Your task to perform on an android device: What's the weather going to be tomorrow? Image 0: 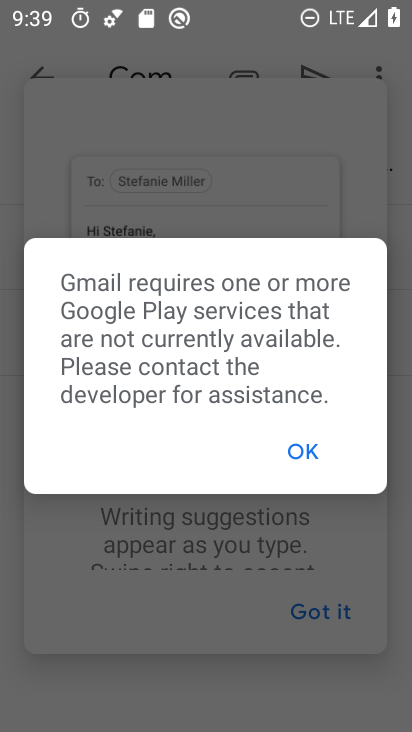
Step 0: press home button
Your task to perform on an android device: What's the weather going to be tomorrow? Image 1: 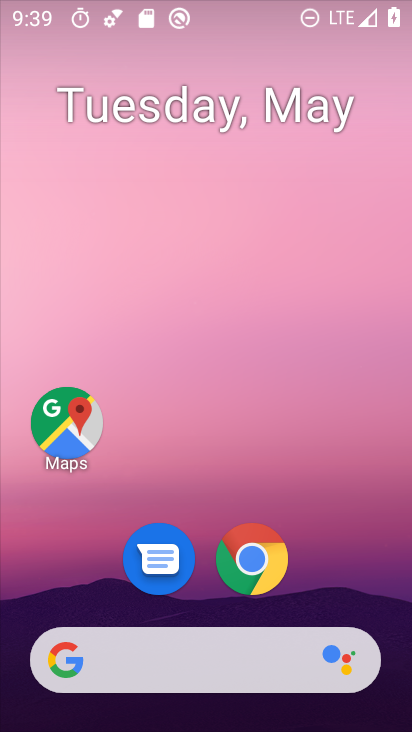
Step 1: drag from (397, 624) to (269, 102)
Your task to perform on an android device: What's the weather going to be tomorrow? Image 2: 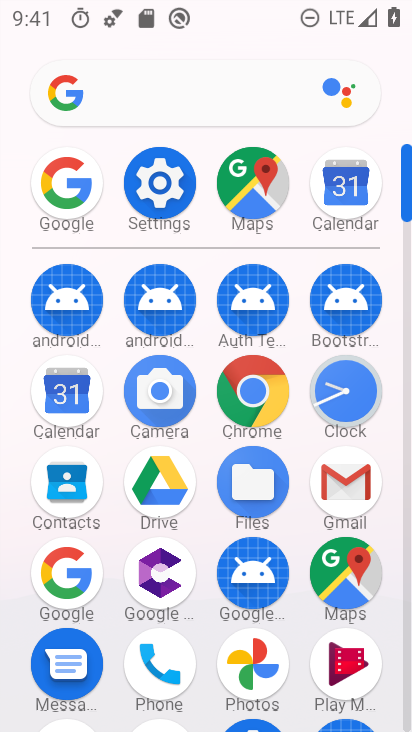
Step 2: click (85, 556)
Your task to perform on an android device: What's the weather going to be tomorrow? Image 3: 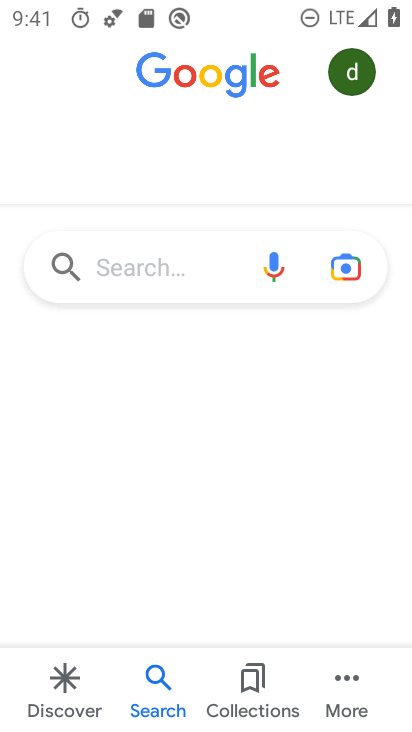
Step 3: click (107, 253)
Your task to perform on an android device: What's the weather going to be tomorrow? Image 4: 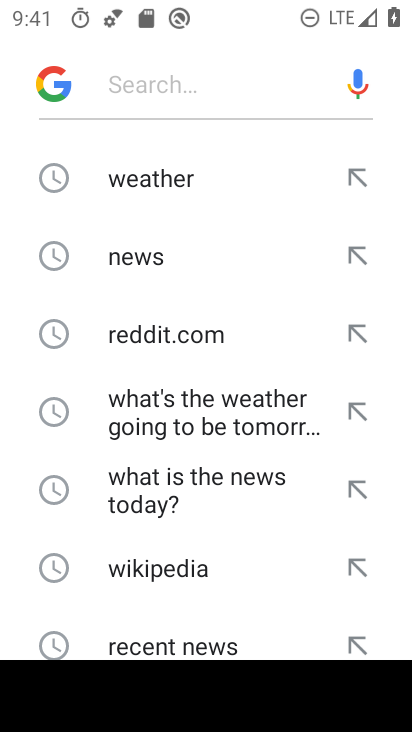
Step 4: click (237, 409)
Your task to perform on an android device: What's the weather going to be tomorrow? Image 5: 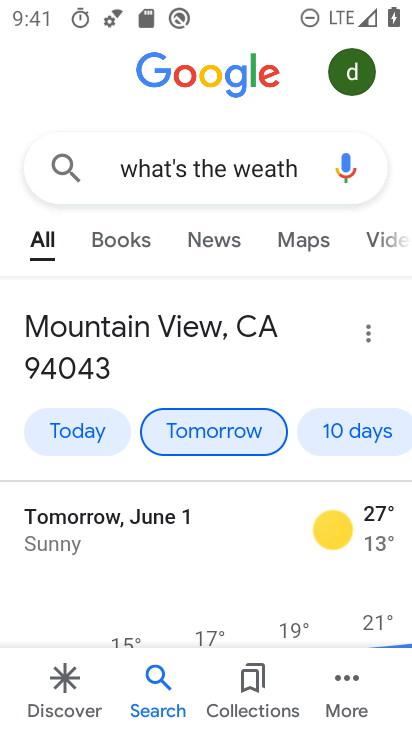
Step 5: task complete